Your task to perform on an android device: toggle improve location accuracy Image 0: 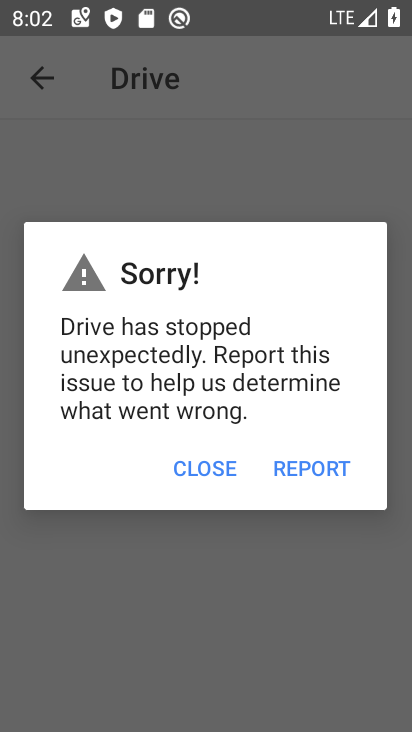
Step 0: press home button
Your task to perform on an android device: toggle improve location accuracy Image 1: 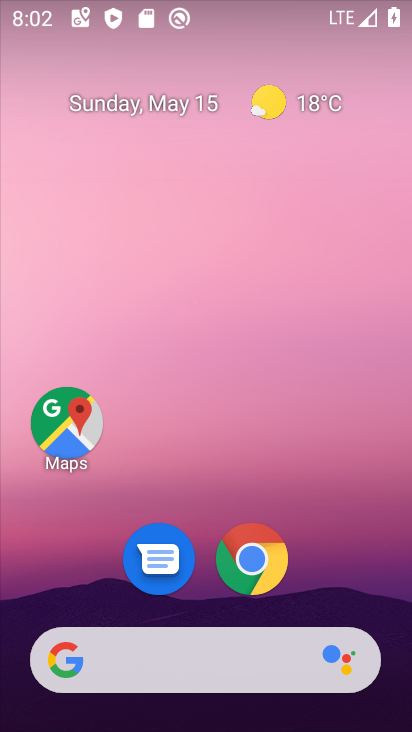
Step 1: drag from (355, 543) to (266, 35)
Your task to perform on an android device: toggle improve location accuracy Image 2: 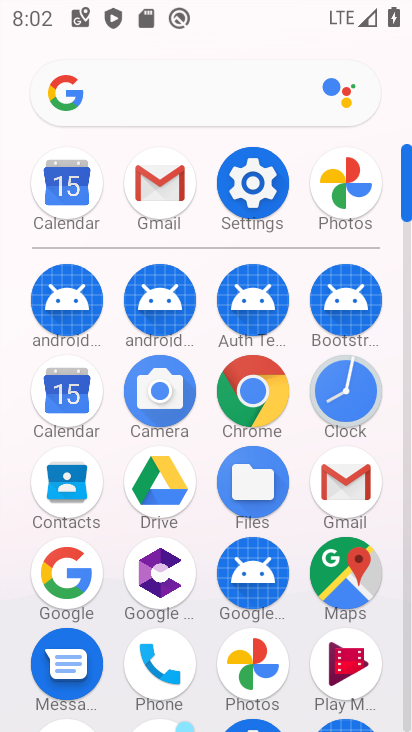
Step 2: click (264, 185)
Your task to perform on an android device: toggle improve location accuracy Image 3: 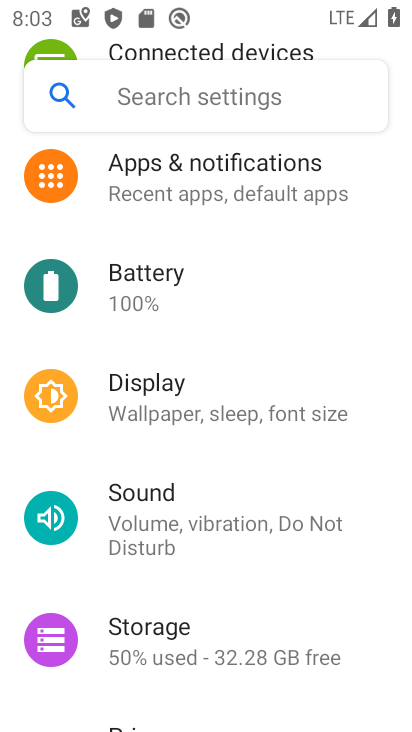
Step 3: drag from (204, 446) to (172, 247)
Your task to perform on an android device: toggle improve location accuracy Image 4: 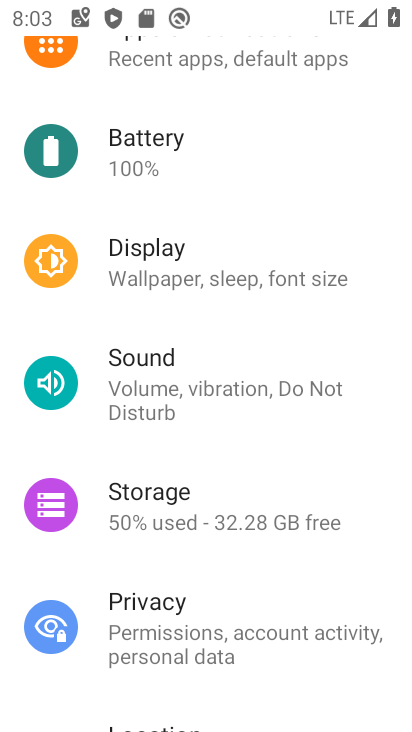
Step 4: drag from (236, 547) to (188, 237)
Your task to perform on an android device: toggle improve location accuracy Image 5: 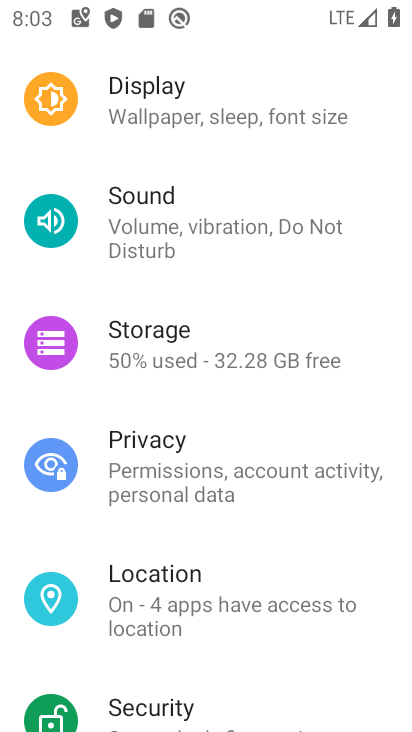
Step 5: click (164, 577)
Your task to perform on an android device: toggle improve location accuracy Image 6: 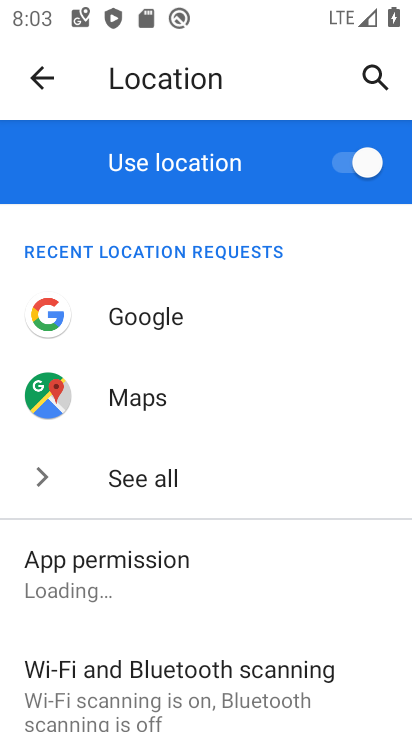
Step 6: drag from (223, 584) to (188, 231)
Your task to perform on an android device: toggle improve location accuracy Image 7: 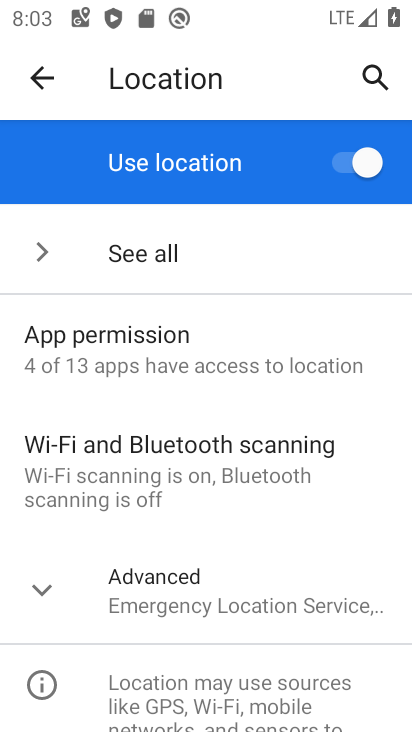
Step 7: click (42, 588)
Your task to perform on an android device: toggle improve location accuracy Image 8: 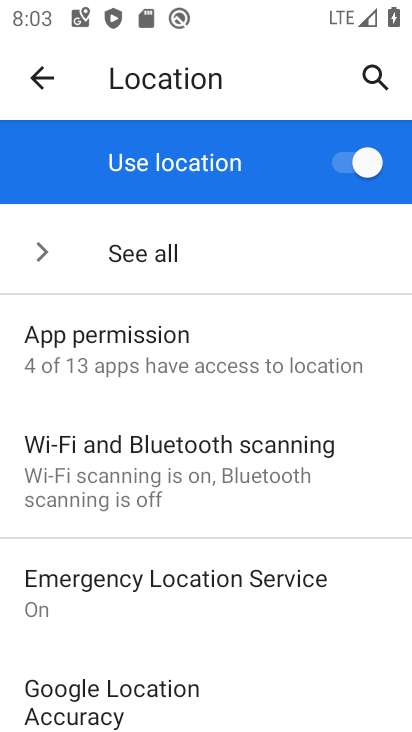
Step 8: drag from (197, 585) to (168, 342)
Your task to perform on an android device: toggle improve location accuracy Image 9: 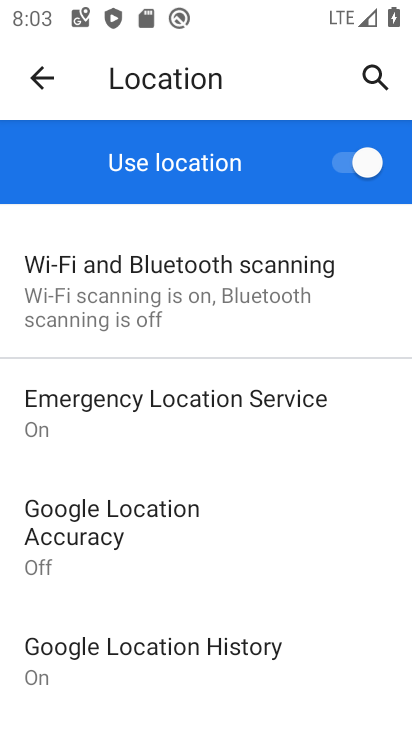
Step 9: click (79, 513)
Your task to perform on an android device: toggle improve location accuracy Image 10: 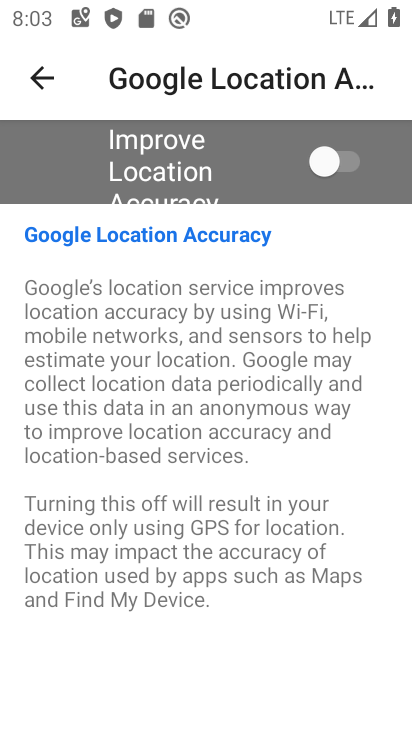
Step 10: click (325, 163)
Your task to perform on an android device: toggle improve location accuracy Image 11: 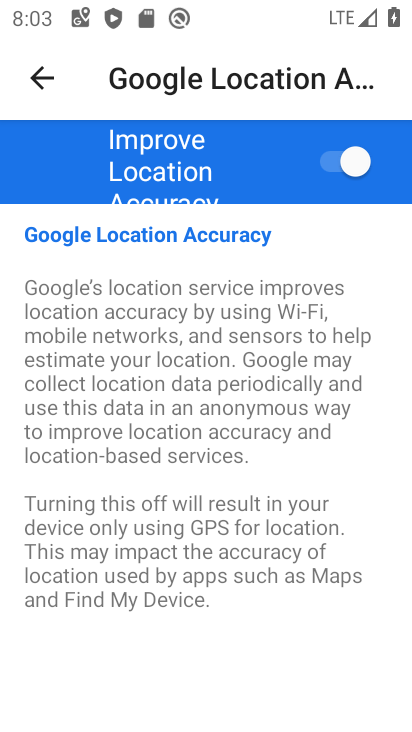
Step 11: task complete